Your task to perform on an android device: Set the phone to "Do not disturb". Image 0: 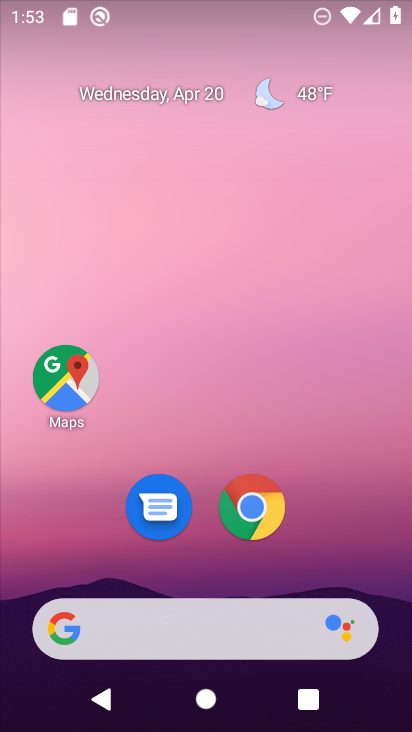
Step 0: drag from (206, 722) to (193, 116)
Your task to perform on an android device: Set the phone to "Do not disturb". Image 1: 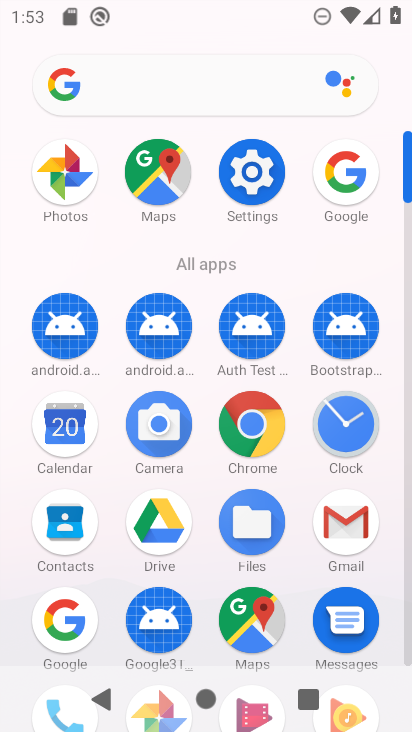
Step 1: click (253, 171)
Your task to perform on an android device: Set the phone to "Do not disturb". Image 2: 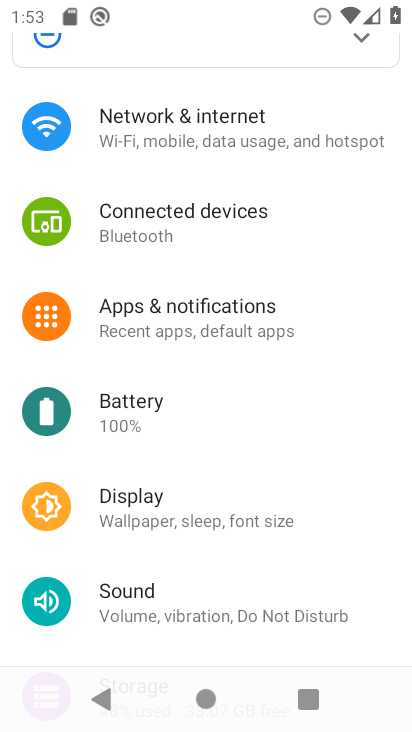
Step 2: click (225, 617)
Your task to perform on an android device: Set the phone to "Do not disturb". Image 3: 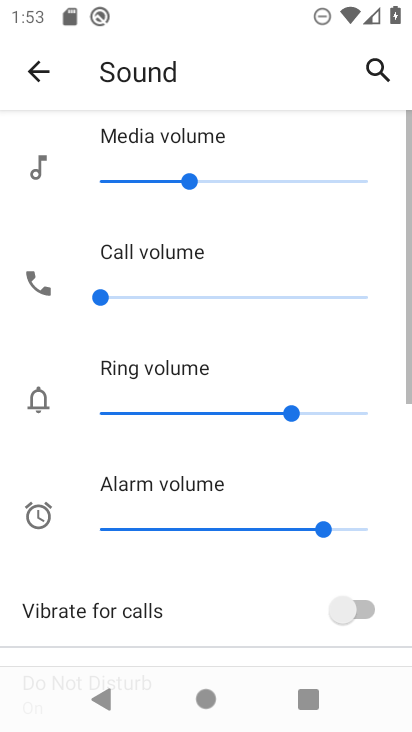
Step 3: drag from (214, 584) to (202, 85)
Your task to perform on an android device: Set the phone to "Do not disturb". Image 4: 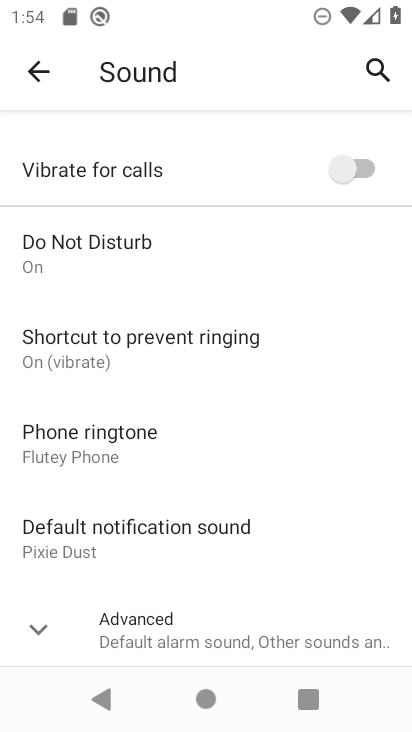
Step 4: click (76, 245)
Your task to perform on an android device: Set the phone to "Do not disturb". Image 5: 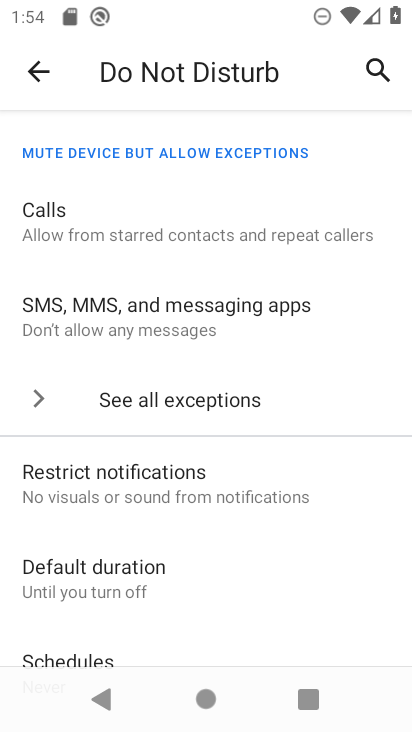
Step 5: task complete